Your task to perform on an android device: remove spam from my inbox in the gmail app Image 0: 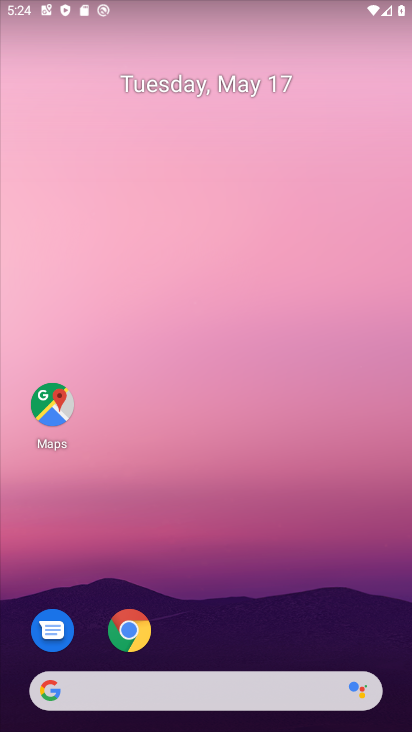
Step 0: drag from (245, 612) to (124, 0)
Your task to perform on an android device: remove spam from my inbox in the gmail app Image 1: 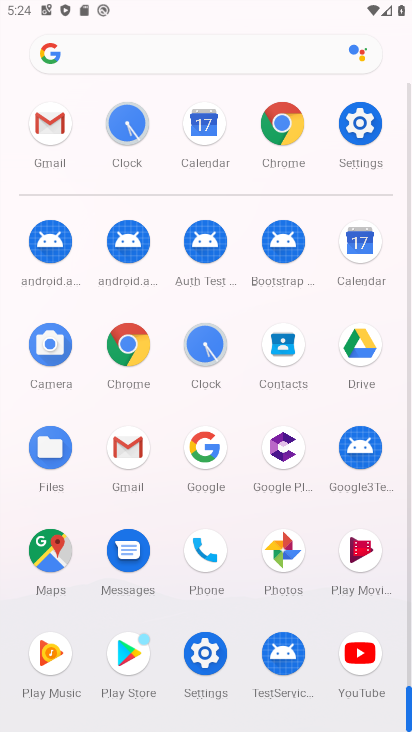
Step 1: click (52, 142)
Your task to perform on an android device: remove spam from my inbox in the gmail app Image 2: 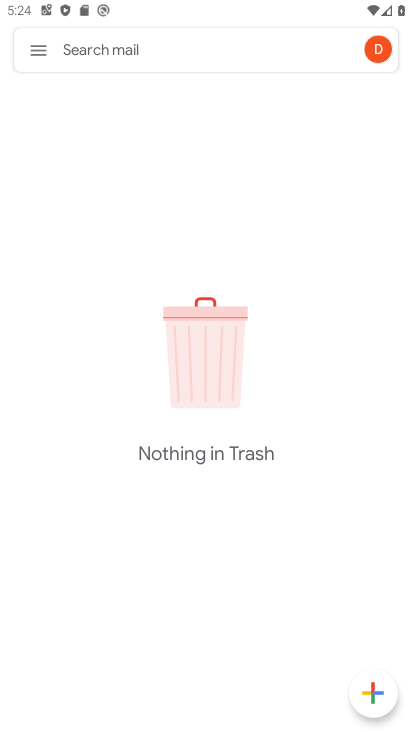
Step 2: click (45, 41)
Your task to perform on an android device: remove spam from my inbox in the gmail app Image 3: 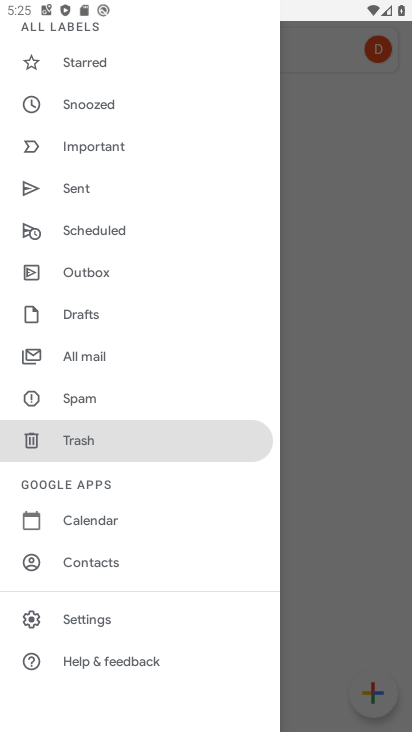
Step 3: drag from (145, 253) to (128, 675)
Your task to perform on an android device: remove spam from my inbox in the gmail app Image 4: 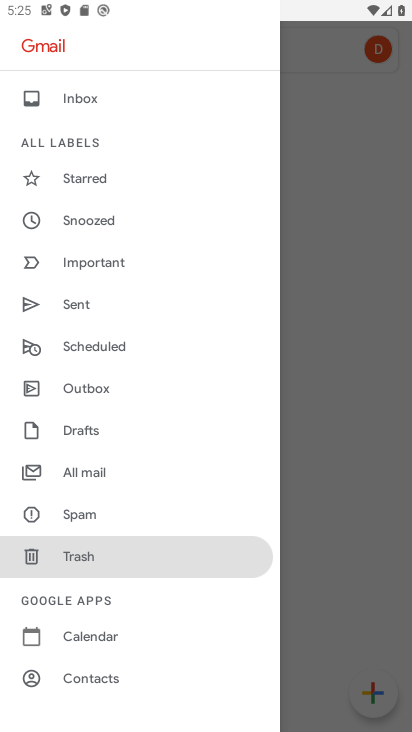
Step 4: click (74, 96)
Your task to perform on an android device: remove spam from my inbox in the gmail app Image 5: 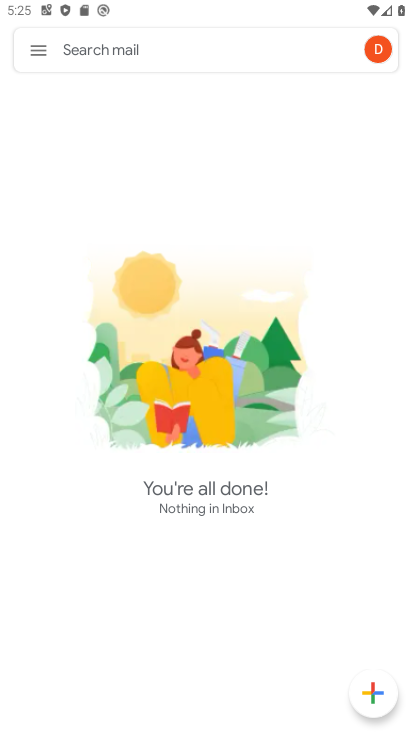
Step 5: task complete